Your task to perform on an android device: toggle sleep mode Image 0: 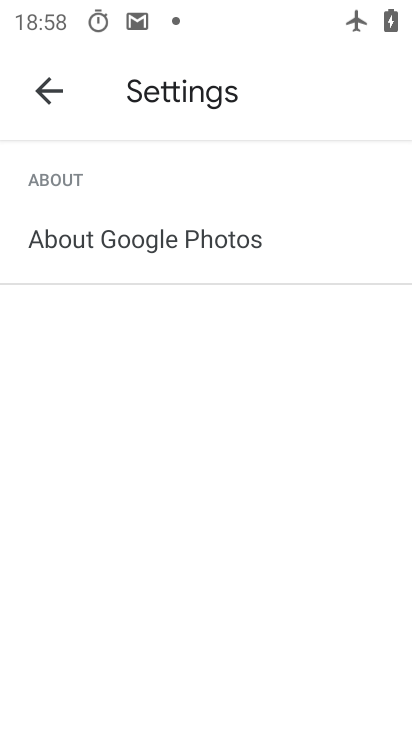
Step 0: press home button
Your task to perform on an android device: toggle sleep mode Image 1: 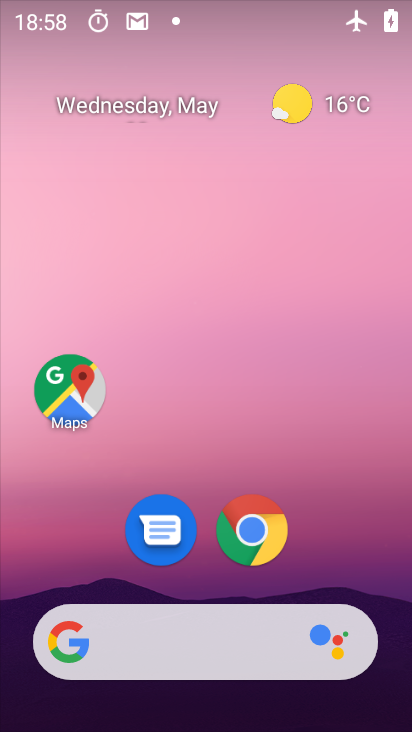
Step 1: drag from (160, 589) to (217, 186)
Your task to perform on an android device: toggle sleep mode Image 2: 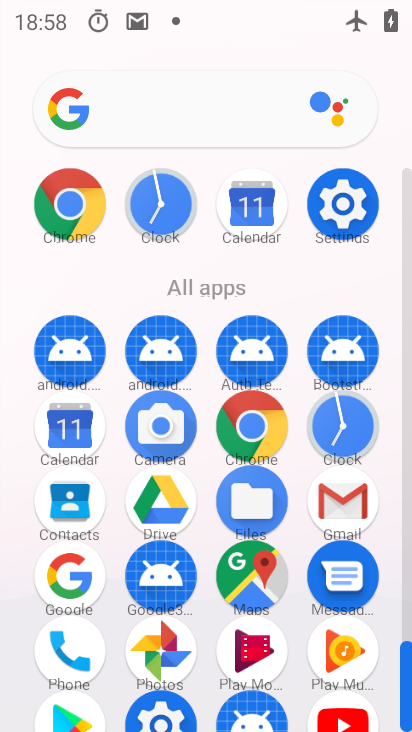
Step 2: click (350, 200)
Your task to perform on an android device: toggle sleep mode Image 3: 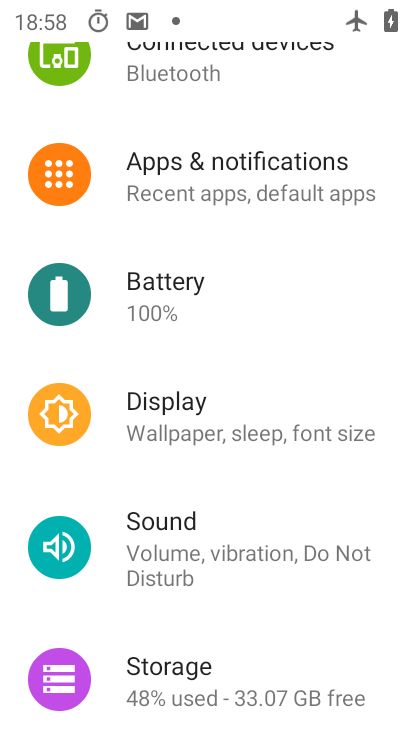
Step 3: click (179, 402)
Your task to perform on an android device: toggle sleep mode Image 4: 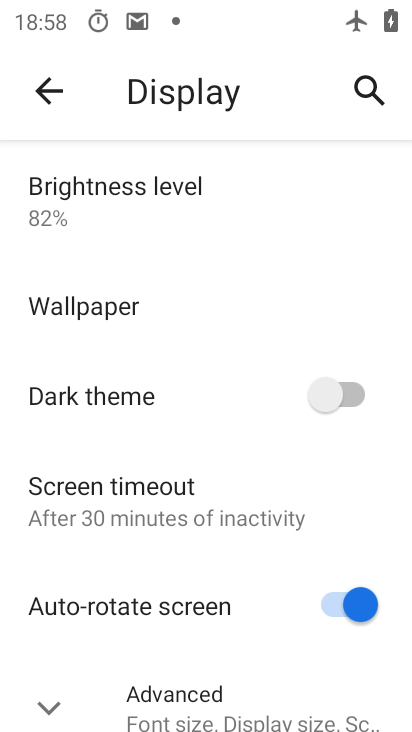
Step 4: task complete